Your task to perform on an android device: Go to CNN.com Image 0: 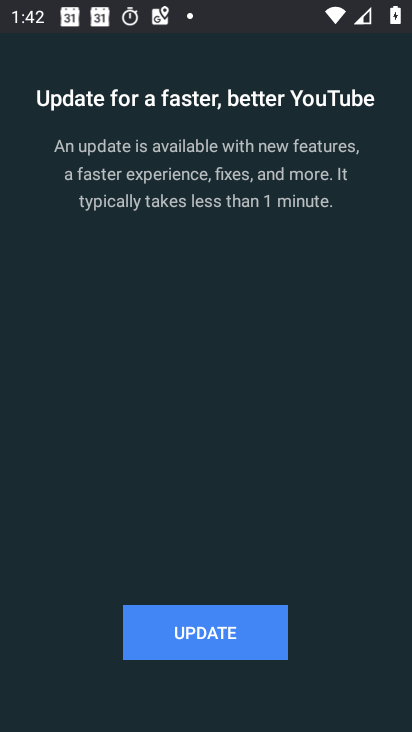
Step 0: press home button
Your task to perform on an android device: Go to CNN.com Image 1: 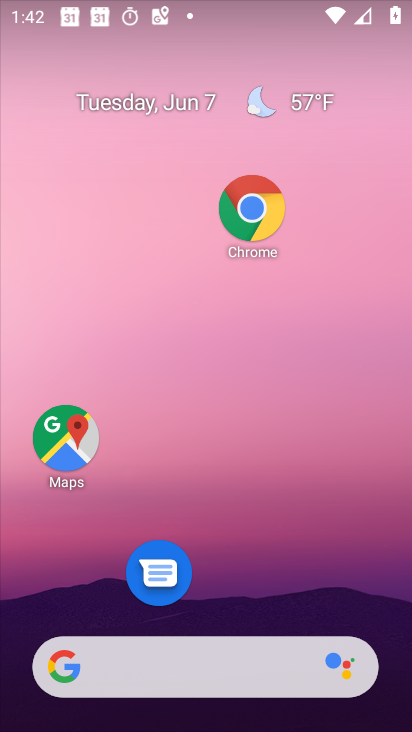
Step 1: click (251, 209)
Your task to perform on an android device: Go to CNN.com Image 2: 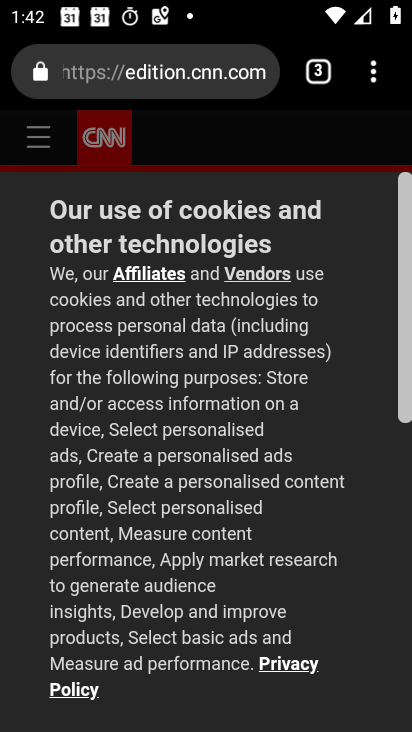
Step 2: click (316, 75)
Your task to perform on an android device: Go to CNN.com Image 3: 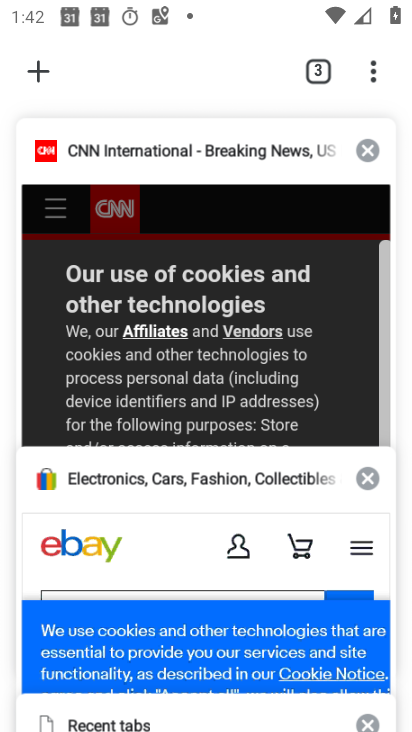
Step 3: click (114, 165)
Your task to perform on an android device: Go to CNN.com Image 4: 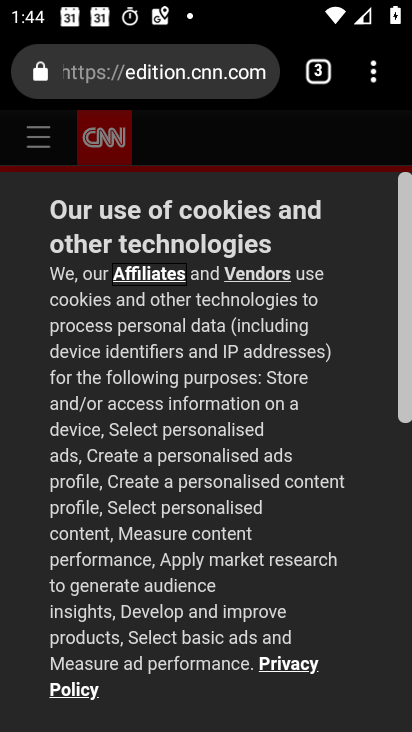
Step 4: task complete